Your task to perform on an android device: change the clock display to show seconds Image 0: 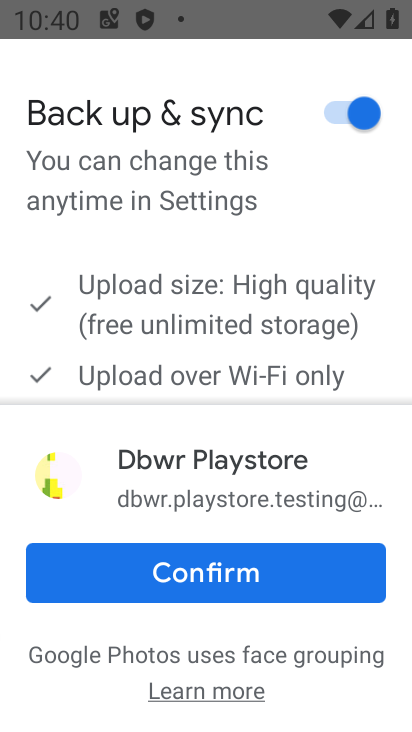
Step 0: press home button
Your task to perform on an android device: change the clock display to show seconds Image 1: 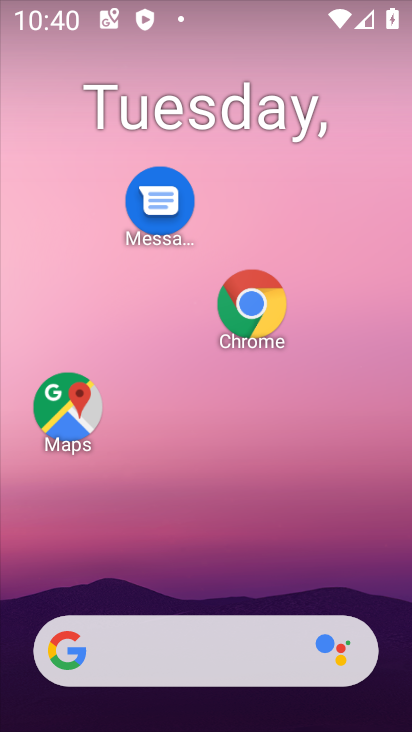
Step 1: click (263, 285)
Your task to perform on an android device: change the clock display to show seconds Image 2: 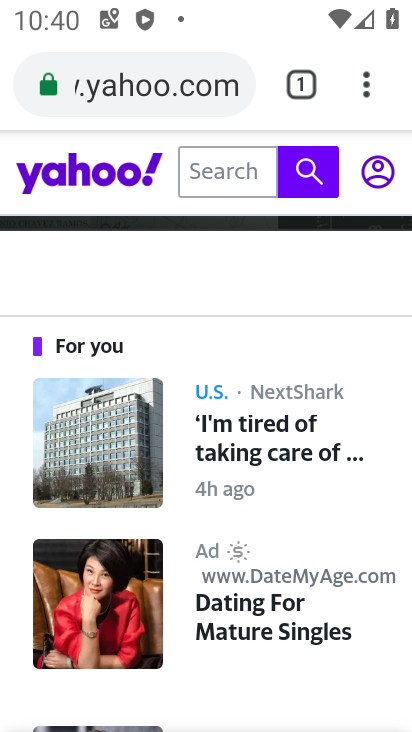
Step 2: press home button
Your task to perform on an android device: change the clock display to show seconds Image 3: 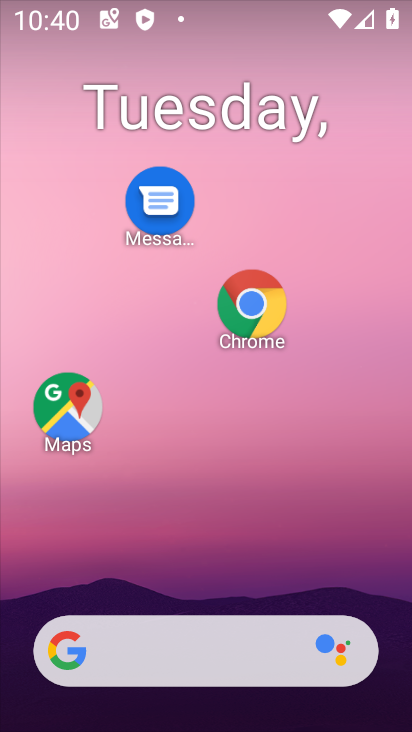
Step 3: drag from (252, 574) to (314, 184)
Your task to perform on an android device: change the clock display to show seconds Image 4: 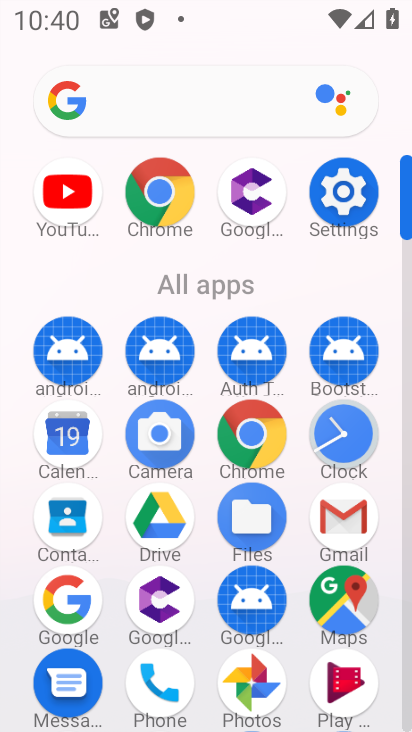
Step 4: click (337, 414)
Your task to perform on an android device: change the clock display to show seconds Image 5: 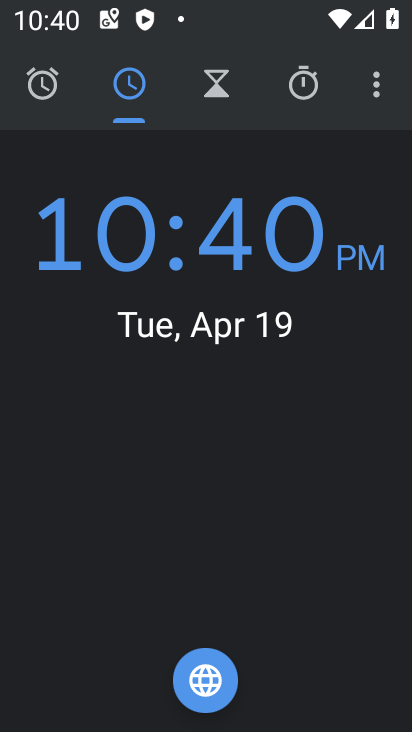
Step 5: click (377, 91)
Your task to perform on an android device: change the clock display to show seconds Image 6: 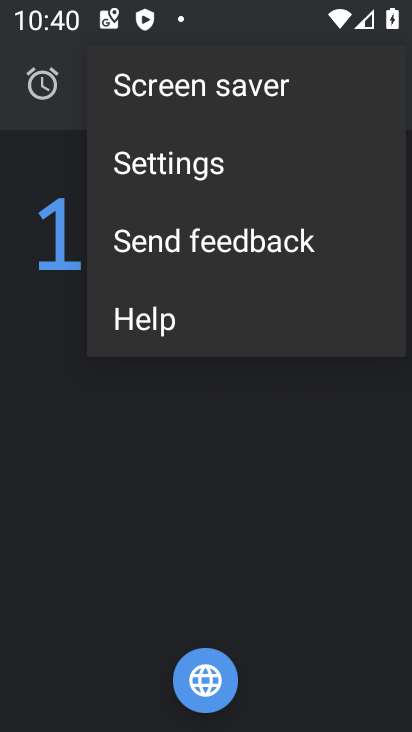
Step 6: click (283, 148)
Your task to perform on an android device: change the clock display to show seconds Image 7: 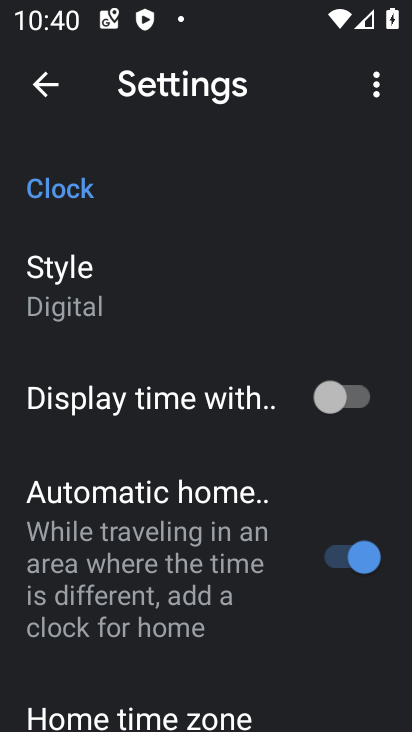
Step 7: click (323, 396)
Your task to perform on an android device: change the clock display to show seconds Image 8: 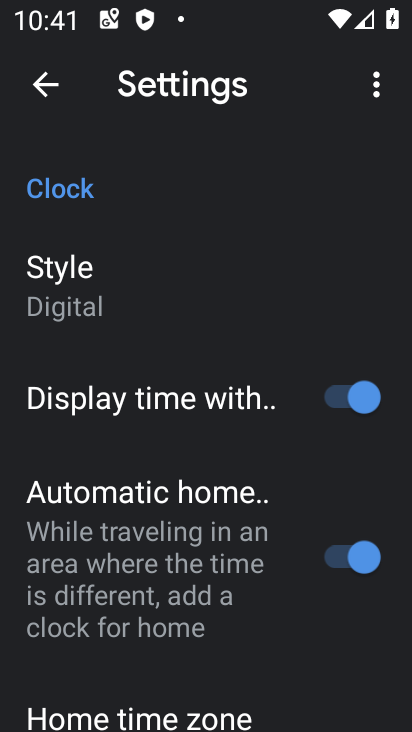
Step 8: task complete